Your task to perform on an android device: Go to CNN.com Image 0: 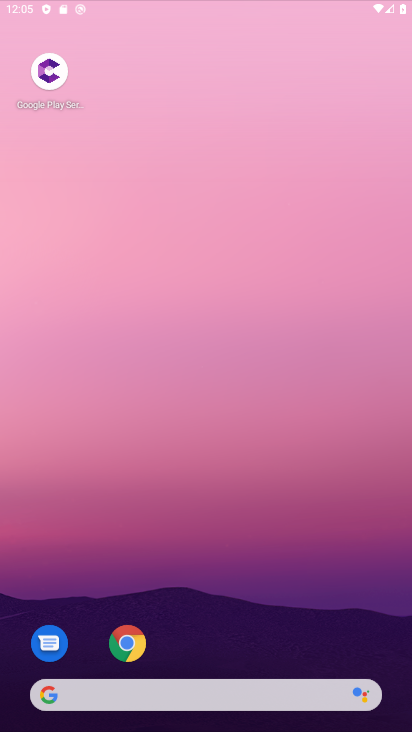
Step 0: click (331, 241)
Your task to perform on an android device: Go to CNN.com Image 1: 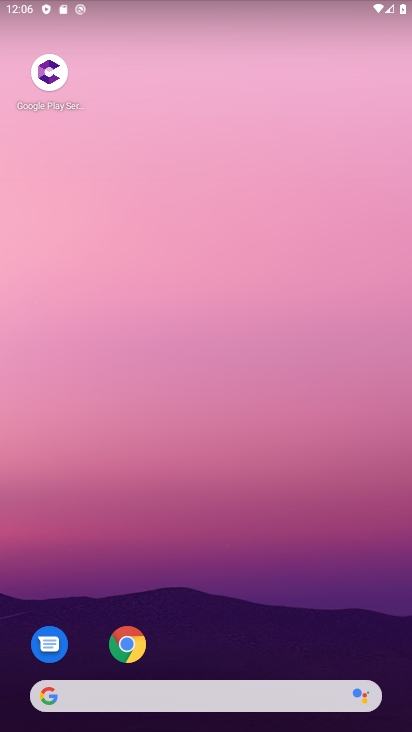
Step 1: drag from (371, 644) to (16, 59)
Your task to perform on an android device: Go to CNN.com Image 2: 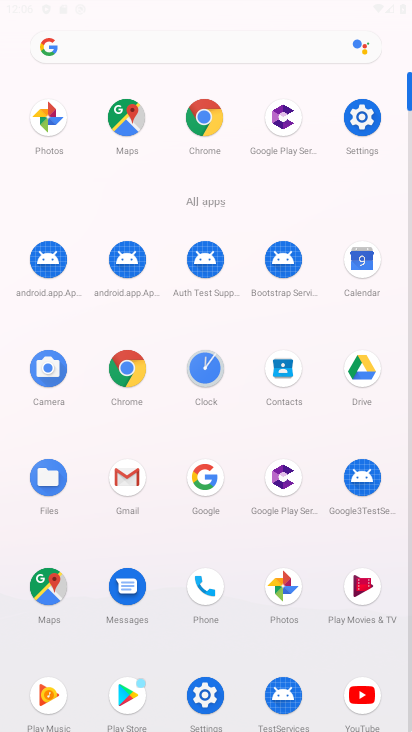
Step 2: click (188, 127)
Your task to perform on an android device: Go to CNN.com Image 3: 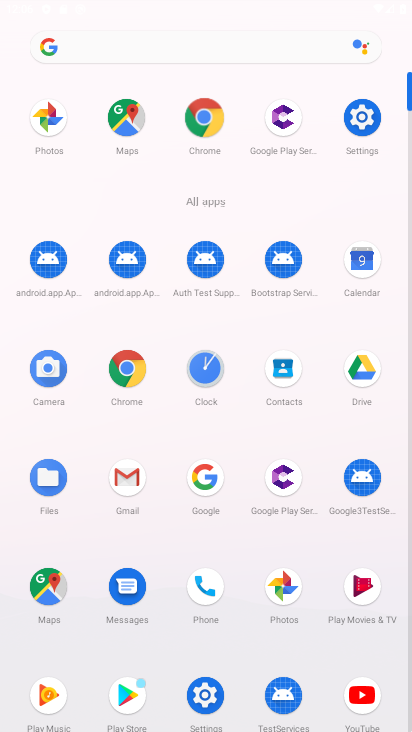
Step 3: click (192, 131)
Your task to perform on an android device: Go to CNN.com Image 4: 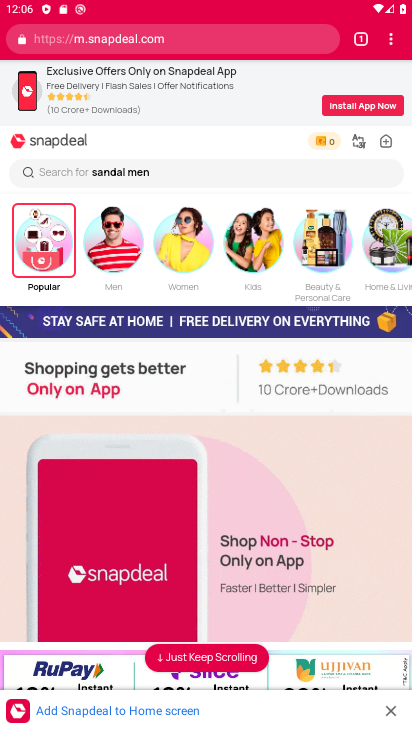
Step 4: press home button
Your task to perform on an android device: Go to CNN.com Image 5: 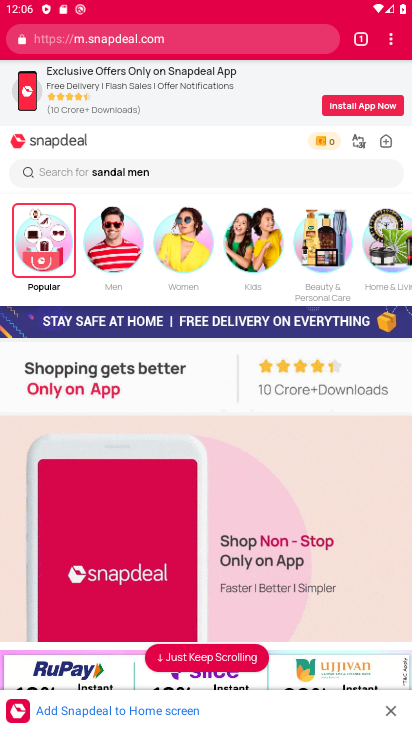
Step 5: press home button
Your task to perform on an android device: Go to CNN.com Image 6: 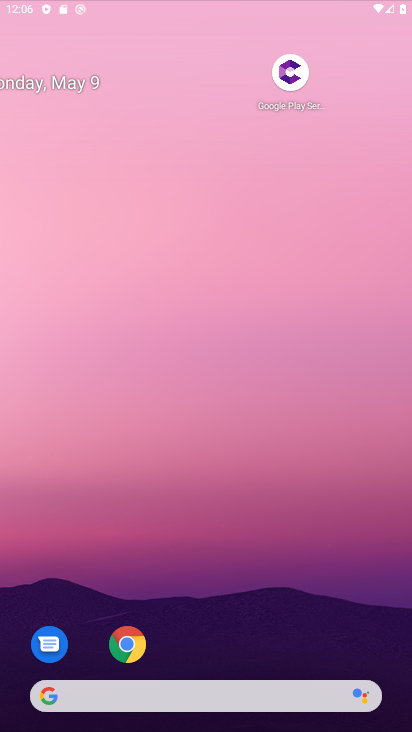
Step 6: press home button
Your task to perform on an android device: Go to CNN.com Image 7: 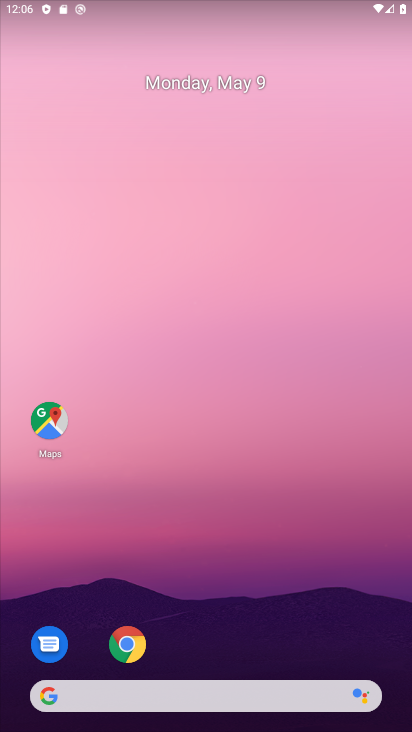
Step 7: drag from (255, 501) to (26, 2)
Your task to perform on an android device: Go to CNN.com Image 8: 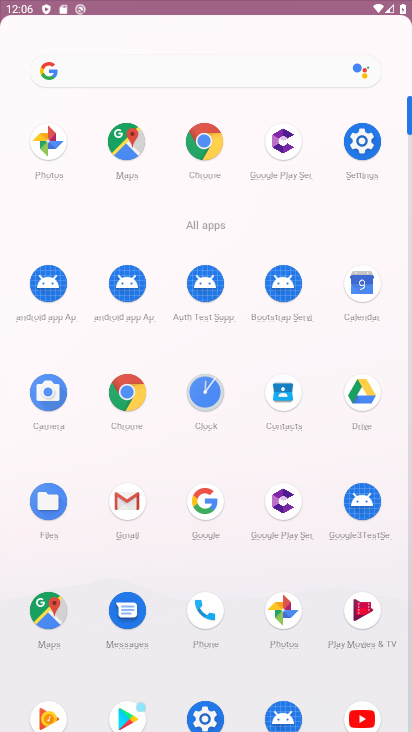
Step 8: drag from (215, 601) to (103, 7)
Your task to perform on an android device: Go to CNN.com Image 9: 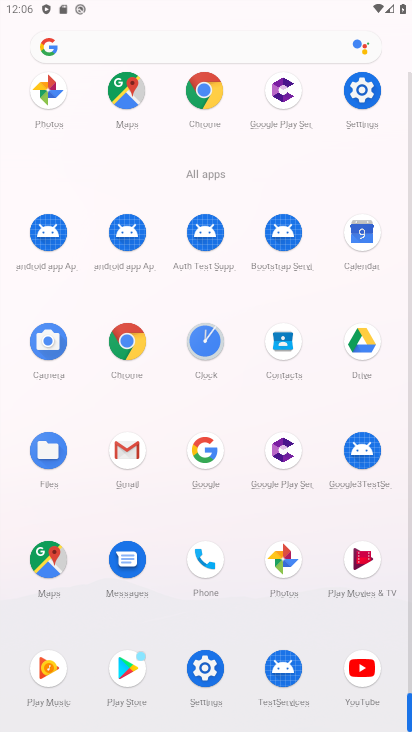
Step 9: click (206, 92)
Your task to perform on an android device: Go to CNN.com Image 10: 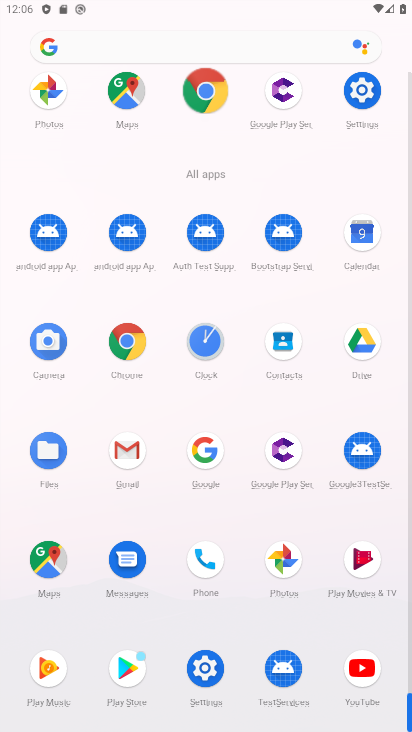
Step 10: click (206, 92)
Your task to perform on an android device: Go to CNN.com Image 11: 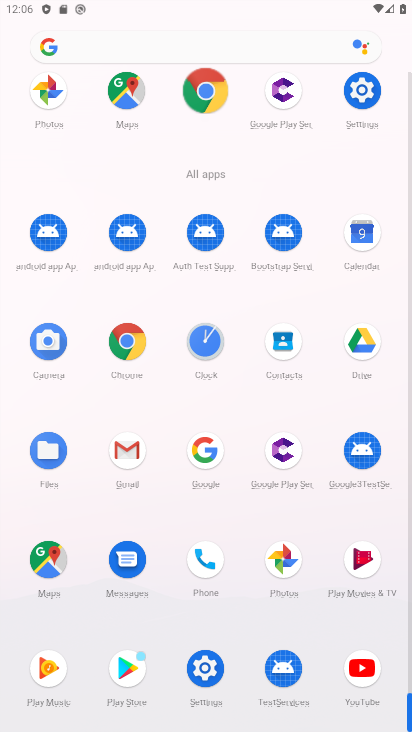
Step 11: click (206, 92)
Your task to perform on an android device: Go to CNN.com Image 12: 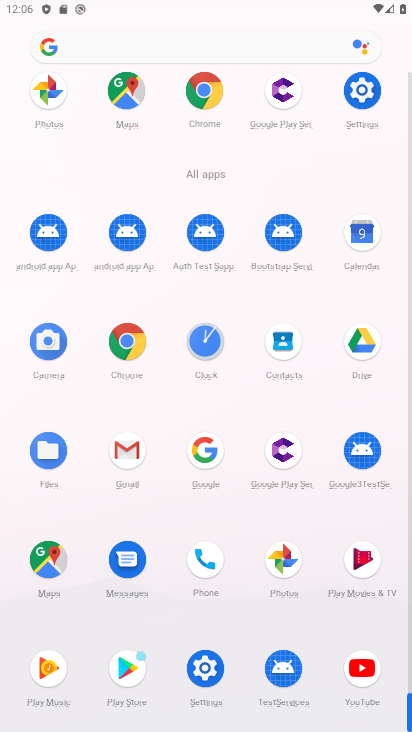
Step 12: click (206, 92)
Your task to perform on an android device: Go to CNN.com Image 13: 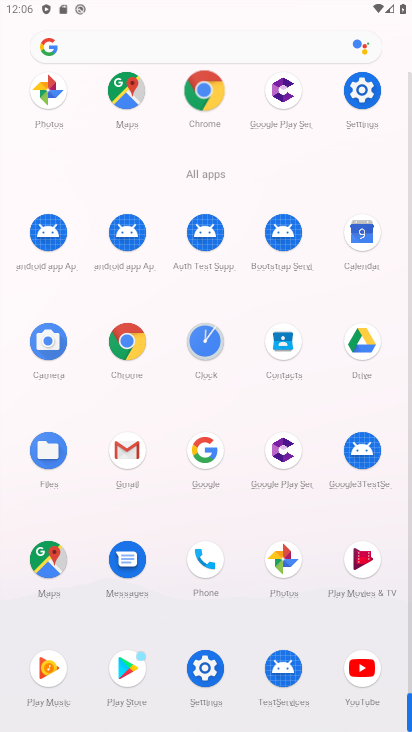
Step 13: click (206, 92)
Your task to perform on an android device: Go to CNN.com Image 14: 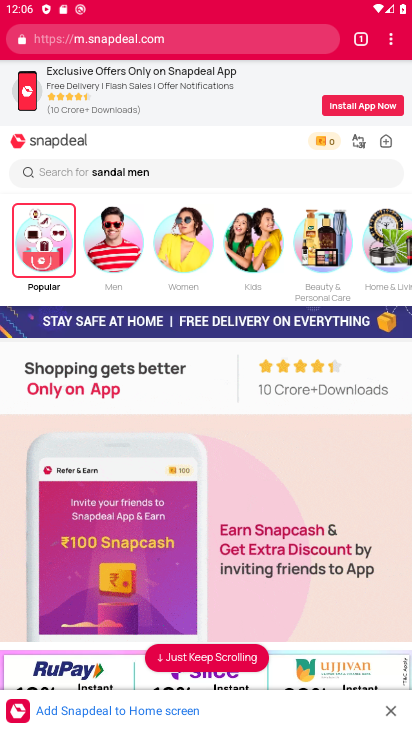
Step 14: click (162, 37)
Your task to perform on an android device: Go to CNN.com Image 15: 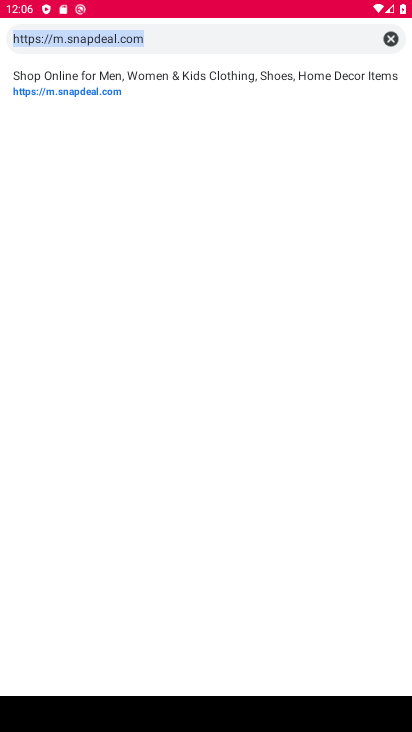
Step 15: click (165, 47)
Your task to perform on an android device: Go to CNN.com Image 16: 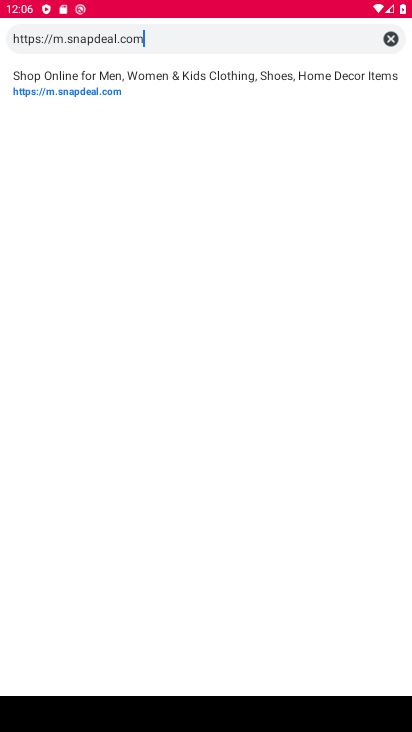
Step 16: click (382, 30)
Your task to perform on an android device: Go to CNN.com Image 17: 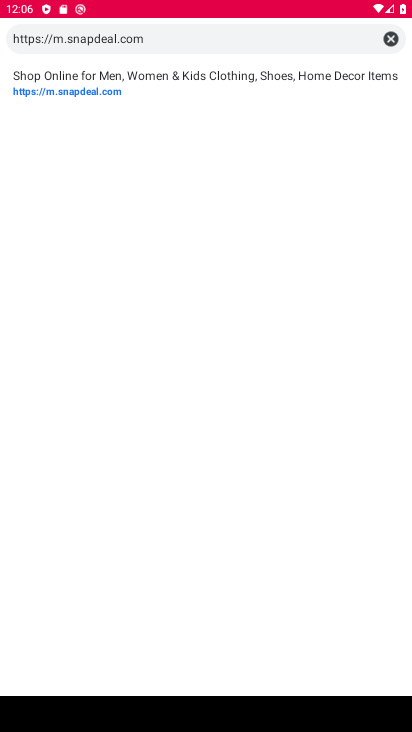
Step 17: click (383, 31)
Your task to perform on an android device: Go to CNN.com Image 18: 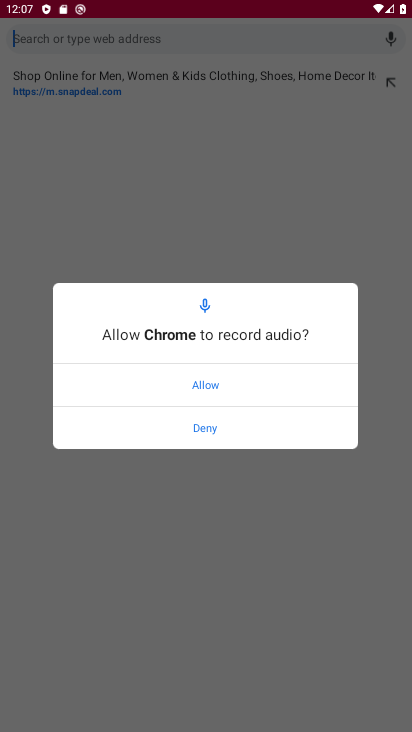
Step 18: click (198, 381)
Your task to perform on an android device: Go to CNN.com Image 19: 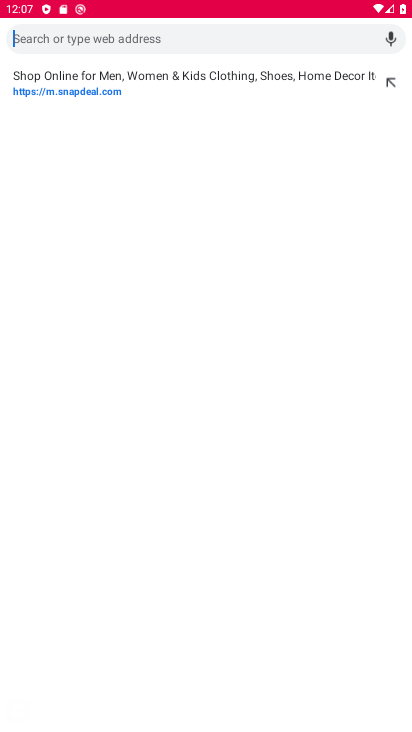
Step 19: click (60, 40)
Your task to perform on an android device: Go to CNN.com Image 20: 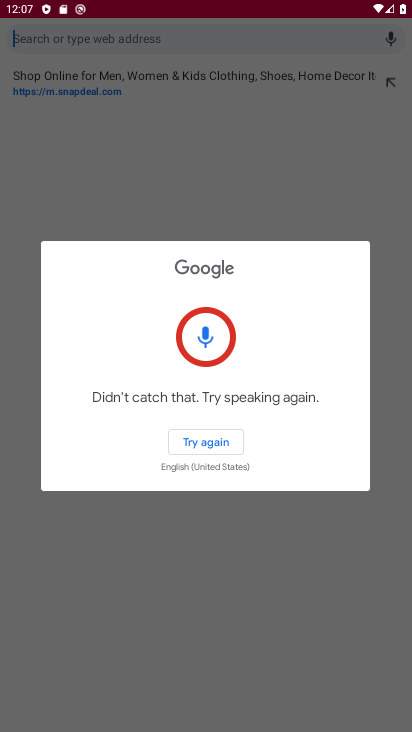
Step 20: type "cnn.com"
Your task to perform on an android device: Go to CNN.com Image 21: 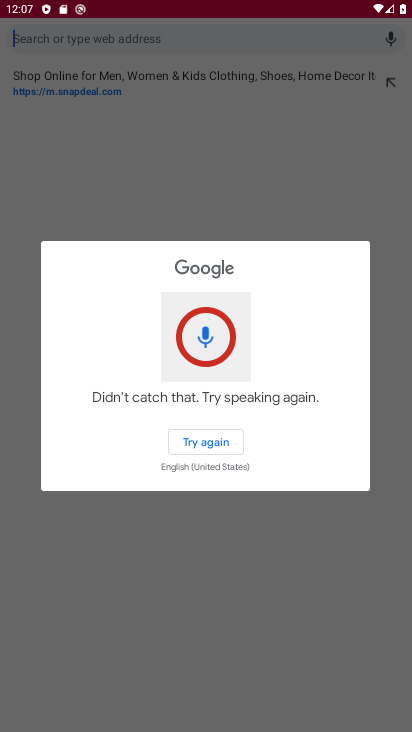
Step 21: click (181, 142)
Your task to perform on an android device: Go to CNN.com Image 22: 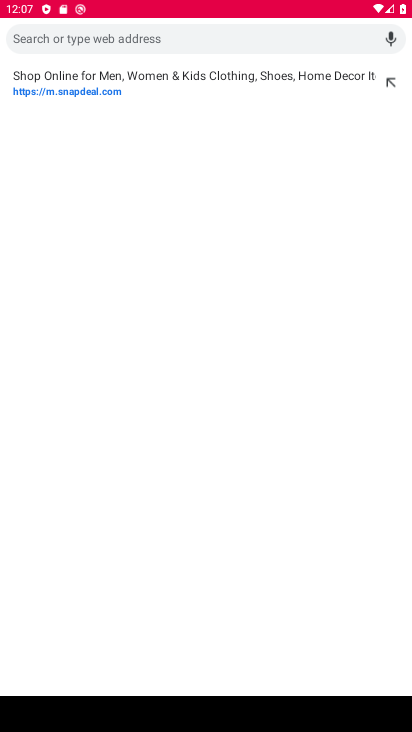
Step 22: click (125, 35)
Your task to perform on an android device: Go to CNN.com Image 23: 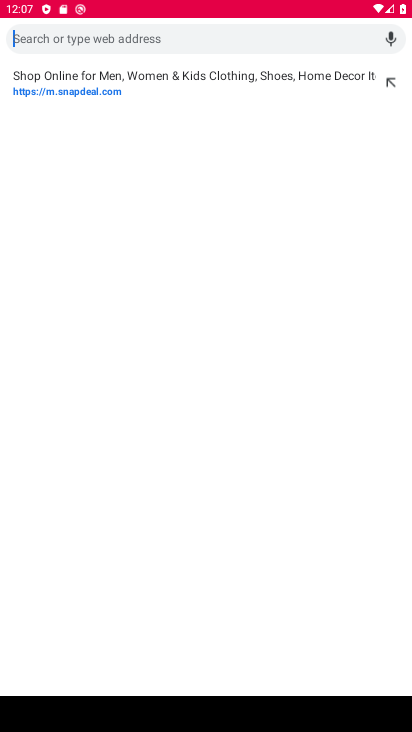
Step 23: click (126, 41)
Your task to perform on an android device: Go to CNN.com Image 24: 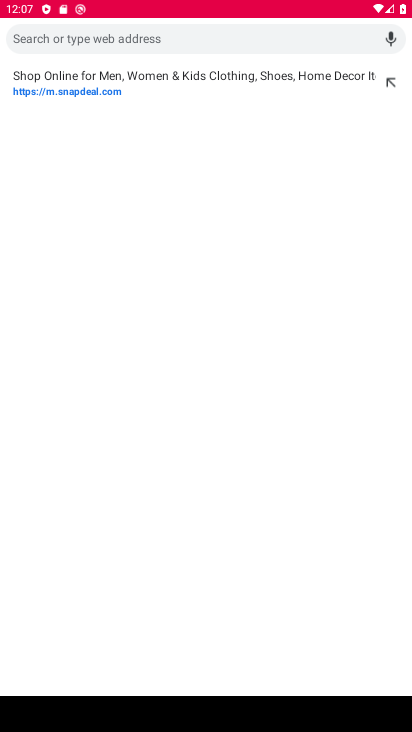
Step 24: type "cnn.com"
Your task to perform on an android device: Go to CNN.com Image 25: 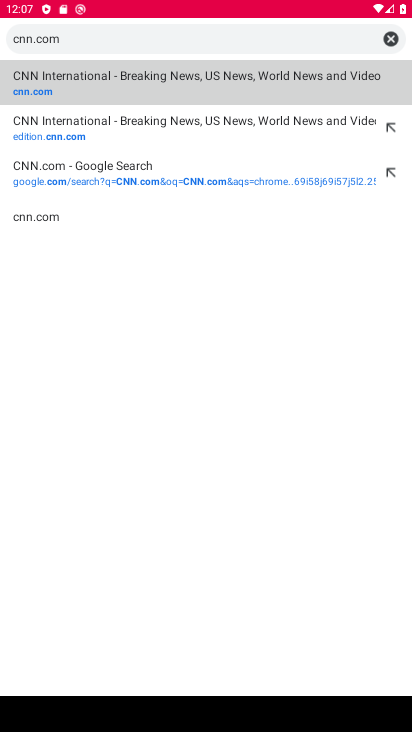
Step 25: click (59, 34)
Your task to perform on an android device: Go to CNN.com Image 26: 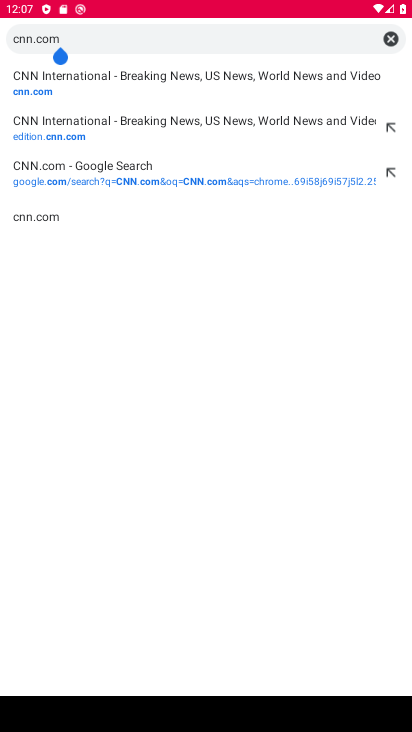
Step 26: click (67, 80)
Your task to perform on an android device: Go to CNN.com Image 27: 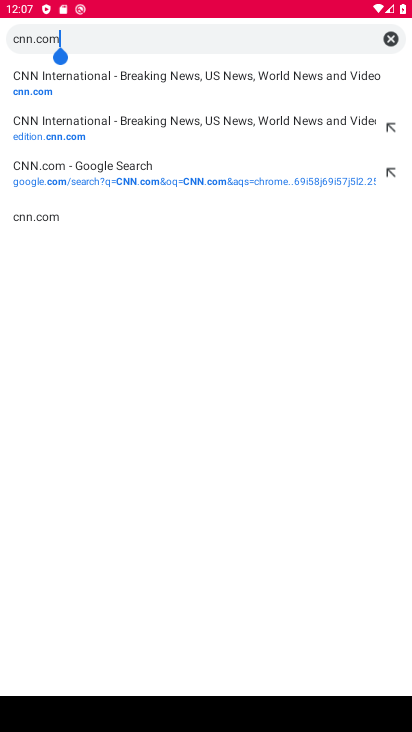
Step 27: click (67, 80)
Your task to perform on an android device: Go to CNN.com Image 28: 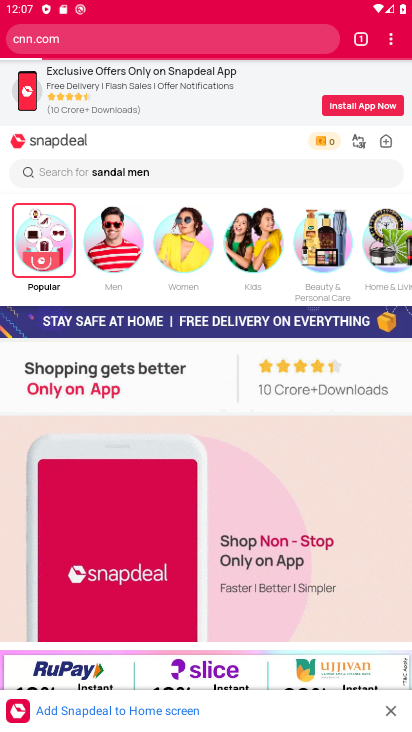
Step 28: click (51, 84)
Your task to perform on an android device: Go to CNN.com Image 29: 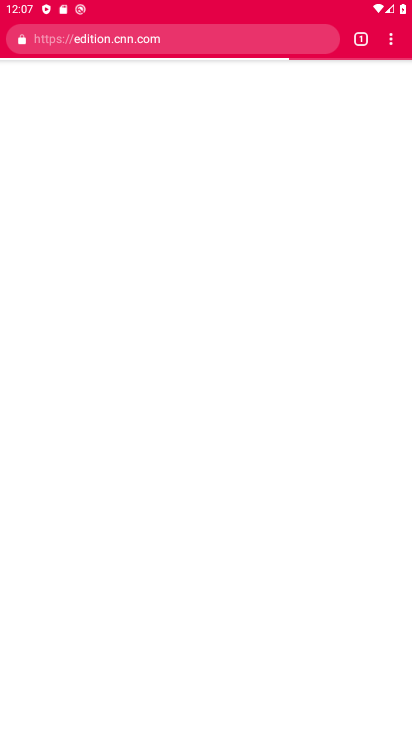
Step 29: task complete